Your task to perform on an android device: Open CNN.com Image 0: 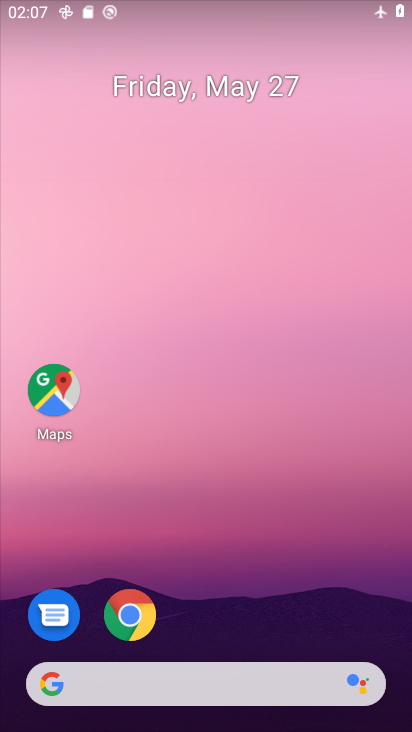
Step 0: drag from (351, 633) to (347, 137)
Your task to perform on an android device: Open CNN.com Image 1: 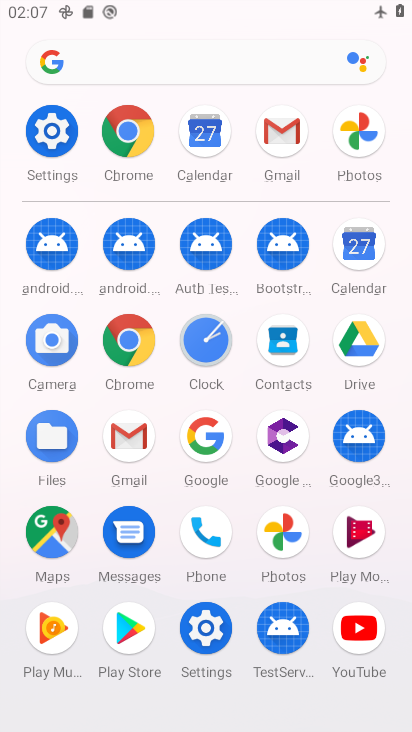
Step 1: click (126, 360)
Your task to perform on an android device: Open CNN.com Image 2: 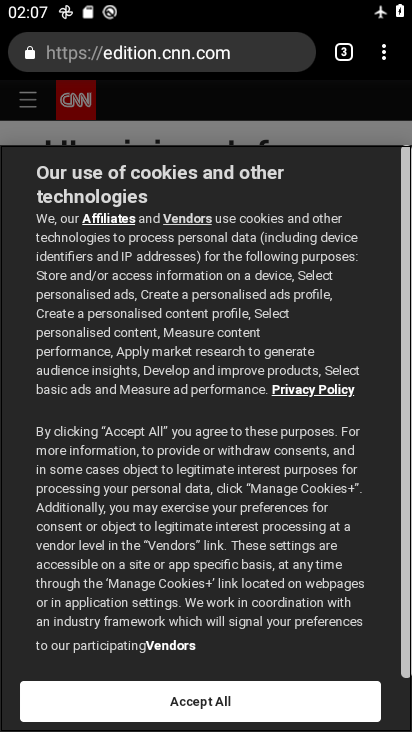
Step 2: click (230, 46)
Your task to perform on an android device: Open CNN.com Image 3: 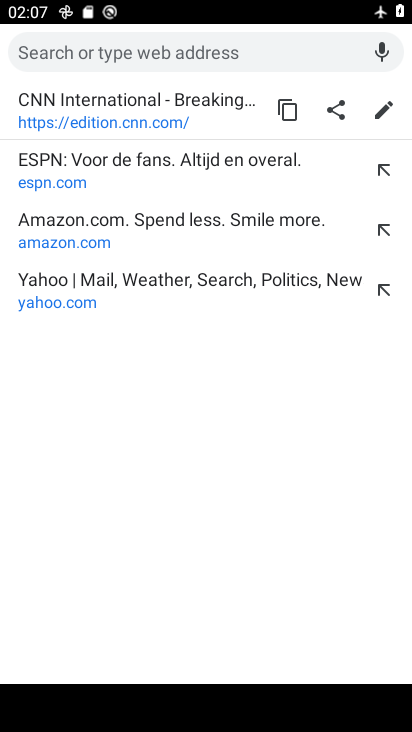
Step 3: type "cnn.com"
Your task to perform on an android device: Open CNN.com Image 4: 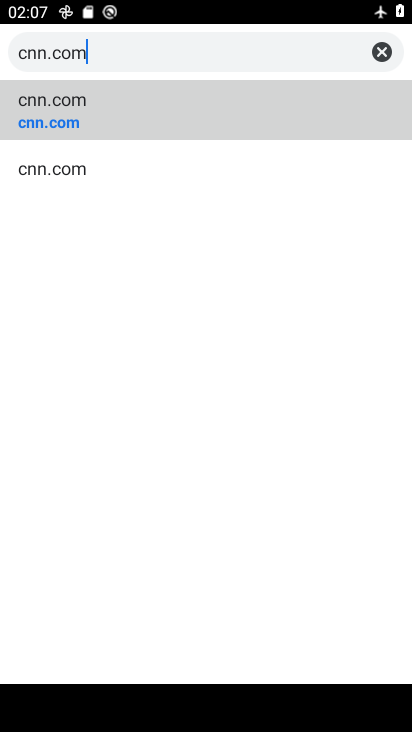
Step 4: click (192, 130)
Your task to perform on an android device: Open CNN.com Image 5: 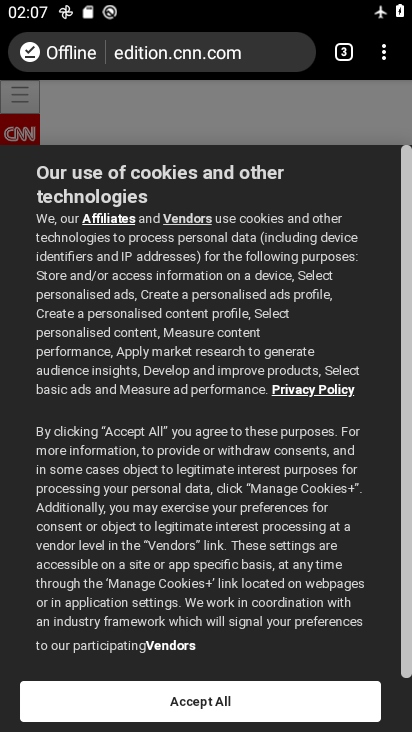
Step 5: task complete